Your task to perform on an android device: manage bookmarks in the chrome app Image 0: 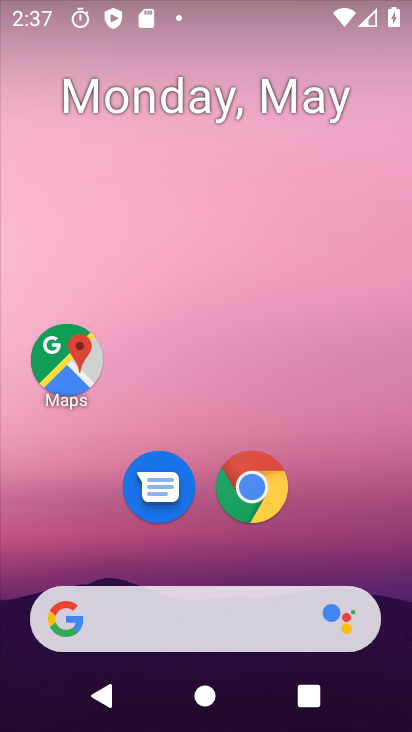
Step 0: click (259, 503)
Your task to perform on an android device: manage bookmarks in the chrome app Image 1: 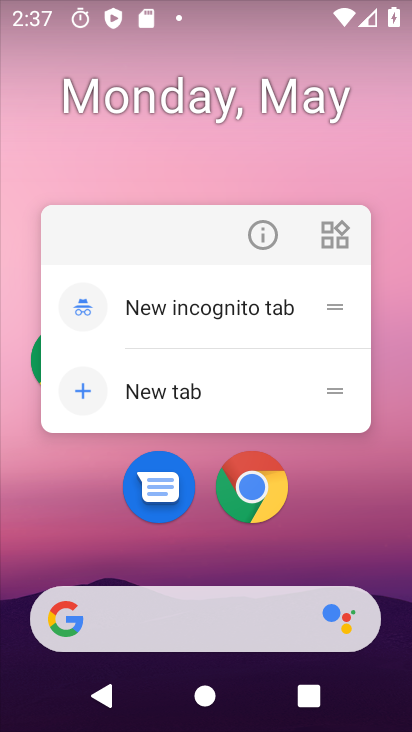
Step 1: click (261, 503)
Your task to perform on an android device: manage bookmarks in the chrome app Image 2: 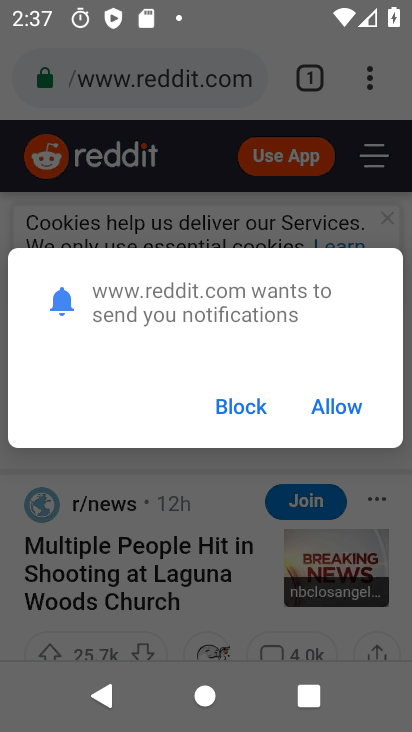
Step 2: click (251, 411)
Your task to perform on an android device: manage bookmarks in the chrome app Image 3: 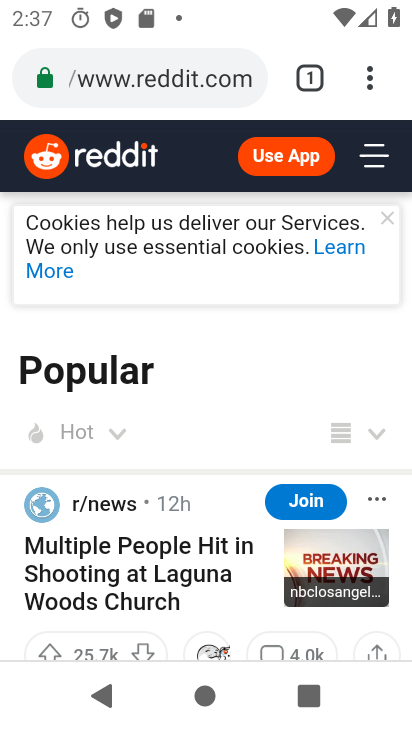
Step 3: click (377, 93)
Your task to perform on an android device: manage bookmarks in the chrome app Image 4: 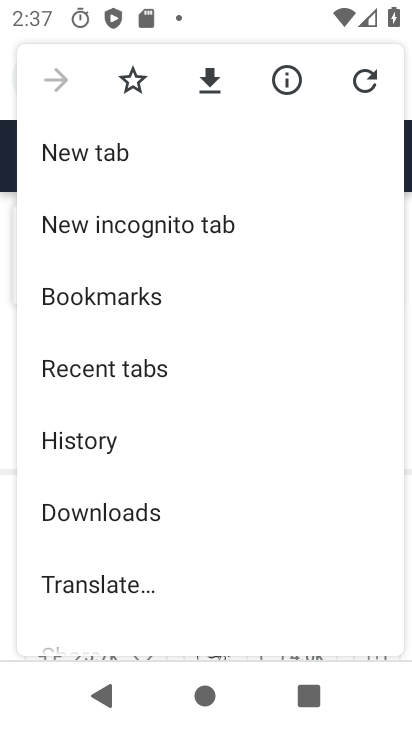
Step 4: click (148, 308)
Your task to perform on an android device: manage bookmarks in the chrome app Image 5: 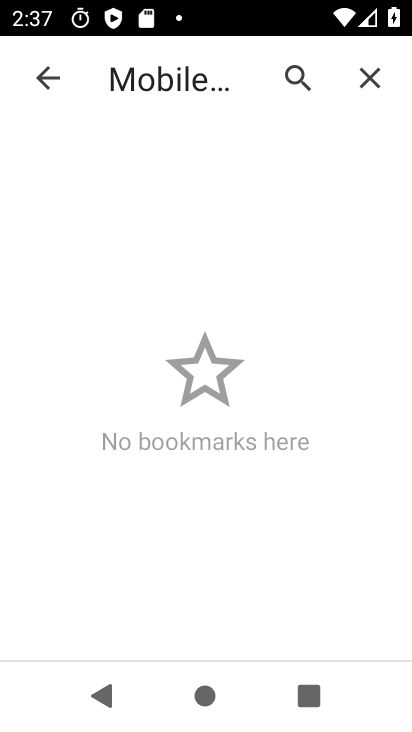
Step 5: task complete